Your task to perform on an android device: Open calendar and show me the third week of next month Image 0: 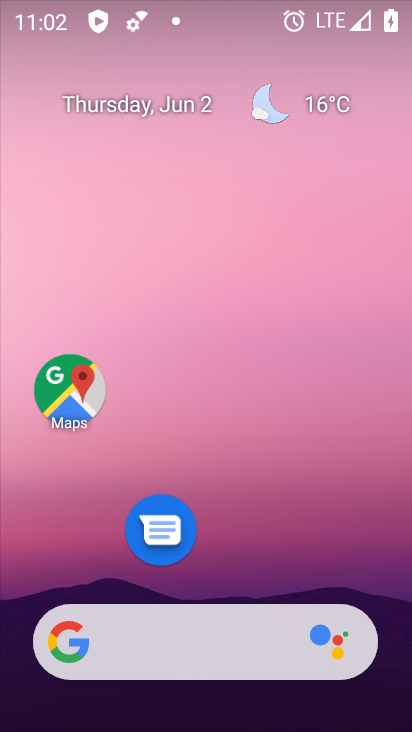
Step 0: drag from (282, 678) to (243, 210)
Your task to perform on an android device: Open calendar and show me the third week of next month Image 1: 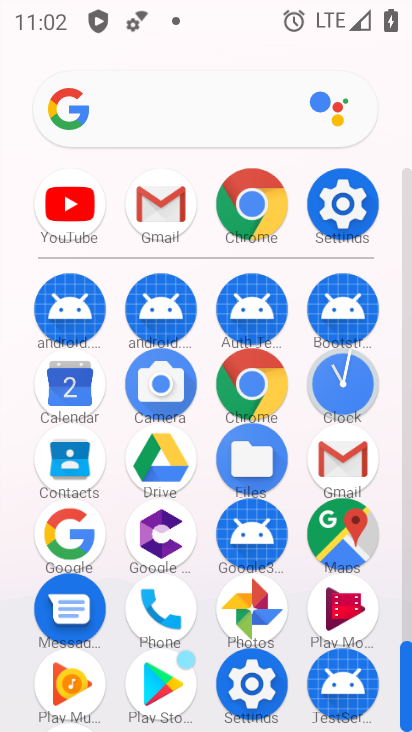
Step 1: click (72, 390)
Your task to perform on an android device: Open calendar and show me the third week of next month Image 2: 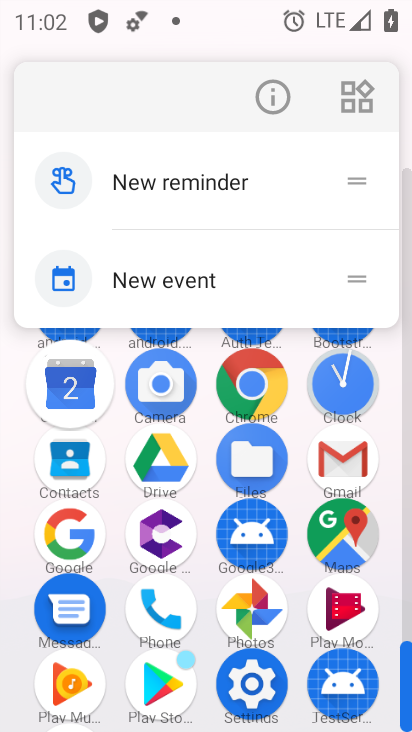
Step 2: click (67, 385)
Your task to perform on an android device: Open calendar and show me the third week of next month Image 3: 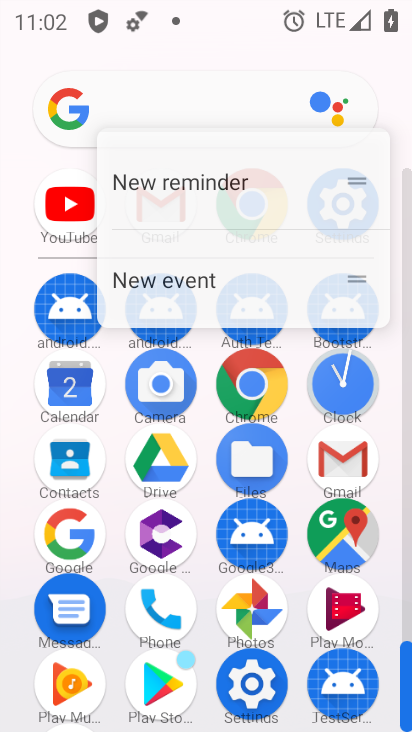
Step 3: click (71, 382)
Your task to perform on an android device: Open calendar and show me the third week of next month Image 4: 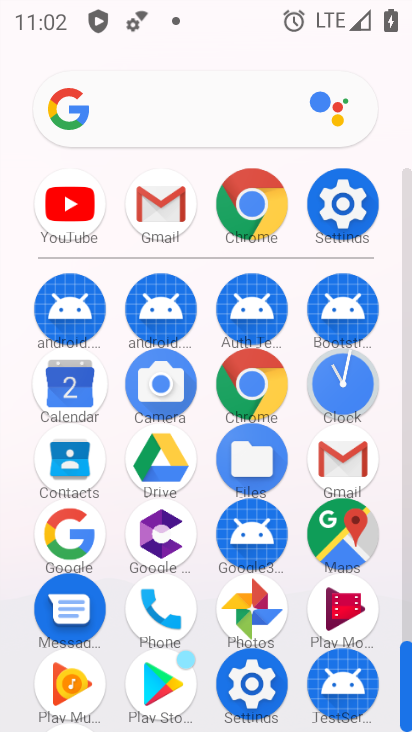
Step 4: click (74, 382)
Your task to perform on an android device: Open calendar and show me the third week of next month Image 5: 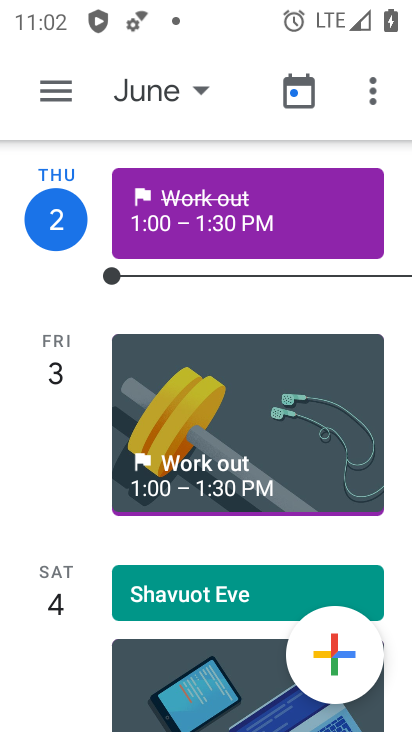
Step 5: click (198, 94)
Your task to perform on an android device: Open calendar and show me the third week of next month Image 6: 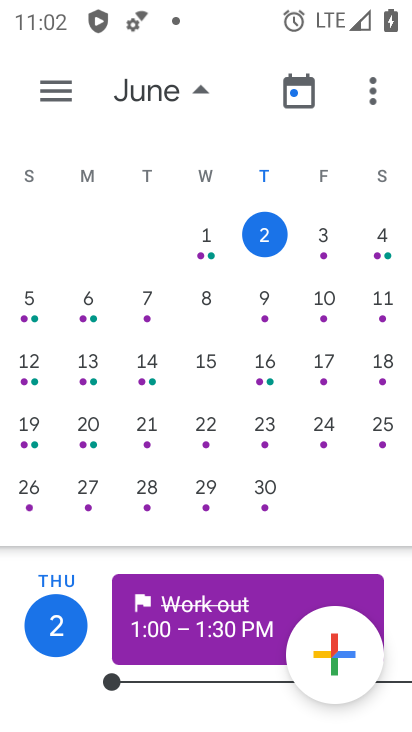
Step 6: click (267, 364)
Your task to perform on an android device: Open calendar and show me the third week of next month Image 7: 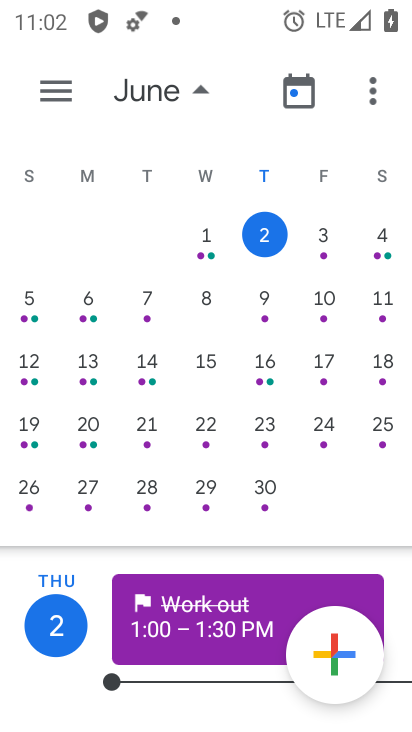
Step 7: click (267, 364)
Your task to perform on an android device: Open calendar and show me the third week of next month Image 8: 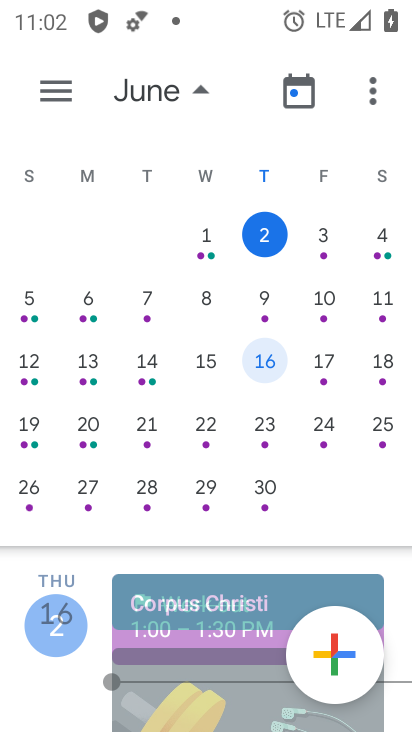
Step 8: click (267, 364)
Your task to perform on an android device: Open calendar and show me the third week of next month Image 9: 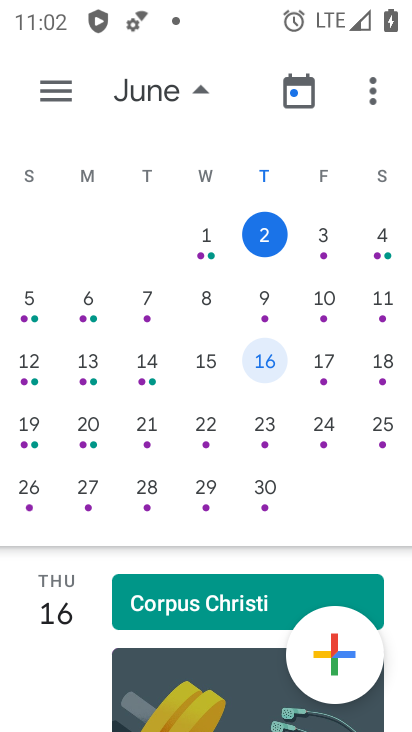
Step 9: click (265, 362)
Your task to perform on an android device: Open calendar and show me the third week of next month Image 10: 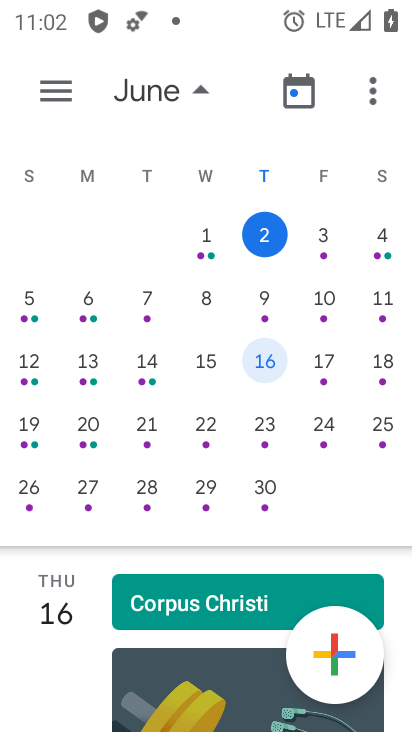
Step 10: click (260, 361)
Your task to perform on an android device: Open calendar and show me the third week of next month Image 11: 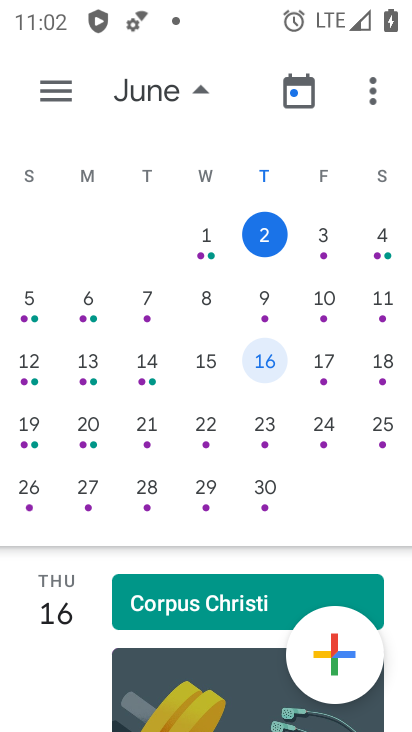
Step 11: click (261, 362)
Your task to perform on an android device: Open calendar and show me the third week of next month Image 12: 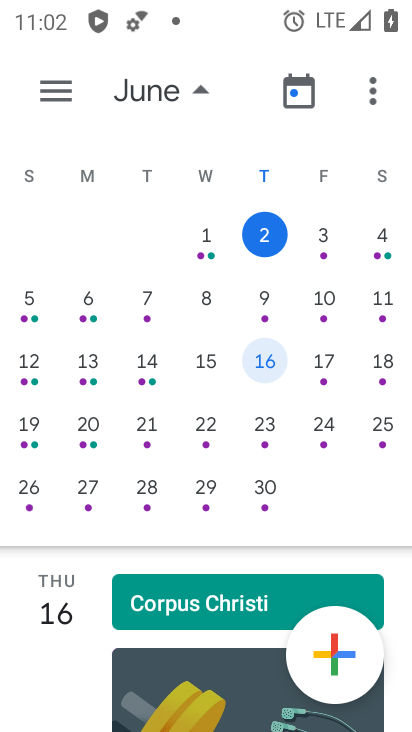
Step 12: click (260, 360)
Your task to perform on an android device: Open calendar and show me the third week of next month Image 13: 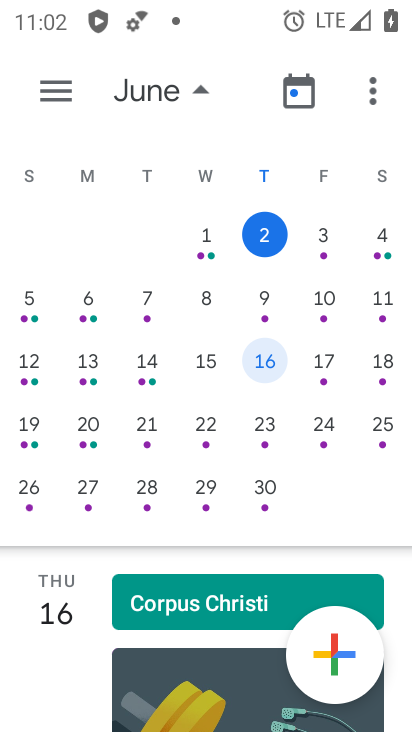
Step 13: click (264, 355)
Your task to perform on an android device: Open calendar and show me the third week of next month Image 14: 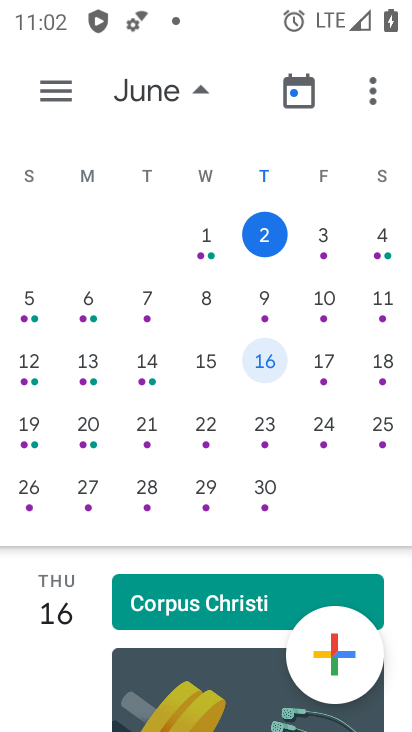
Step 14: click (264, 355)
Your task to perform on an android device: Open calendar and show me the third week of next month Image 15: 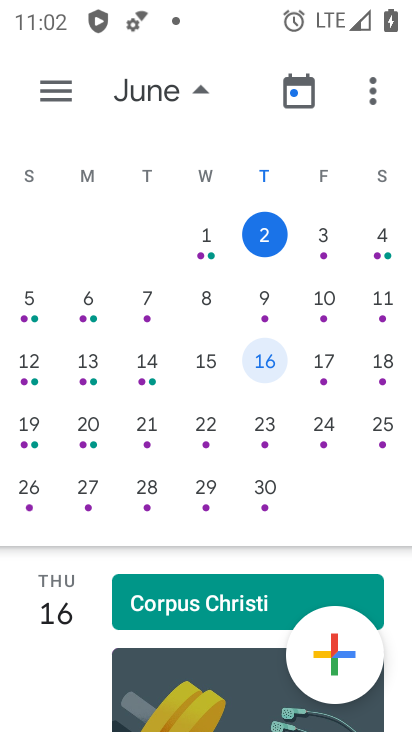
Step 15: click (266, 357)
Your task to perform on an android device: Open calendar and show me the third week of next month Image 16: 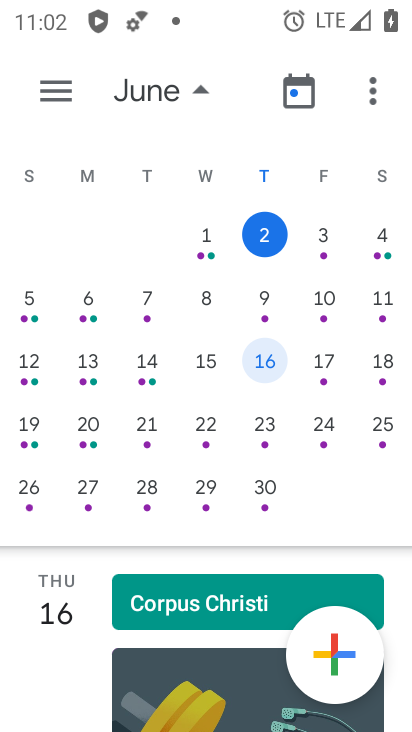
Step 16: click (268, 361)
Your task to perform on an android device: Open calendar and show me the third week of next month Image 17: 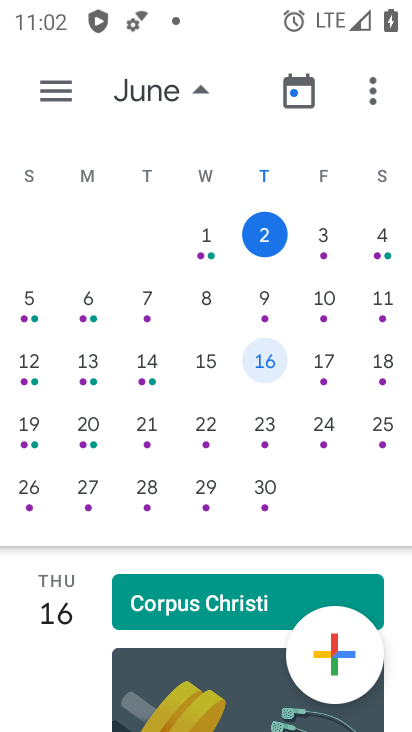
Step 17: click (265, 367)
Your task to perform on an android device: Open calendar and show me the third week of next month Image 18: 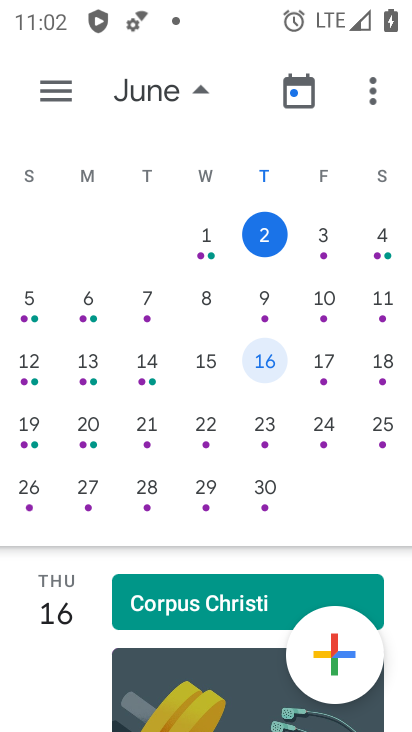
Step 18: click (266, 357)
Your task to perform on an android device: Open calendar and show me the third week of next month Image 19: 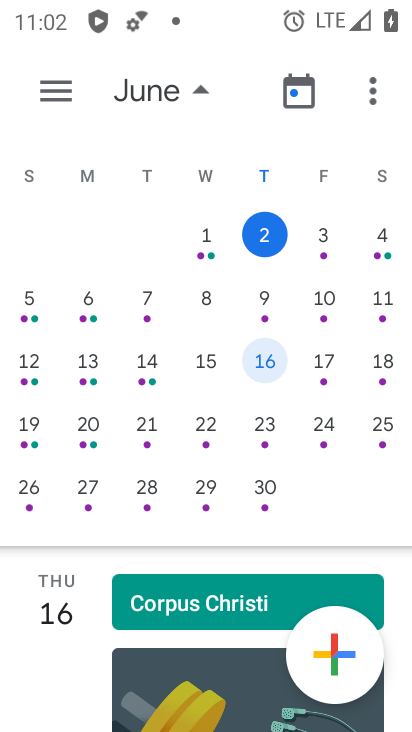
Step 19: click (265, 358)
Your task to perform on an android device: Open calendar and show me the third week of next month Image 20: 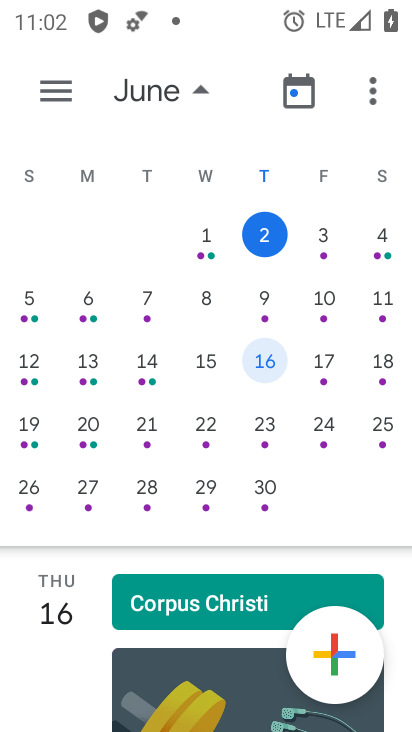
Step 20: click (260, 356)
Your task to perform on an android device: Open calendar and show me the third week of next month Image 21: 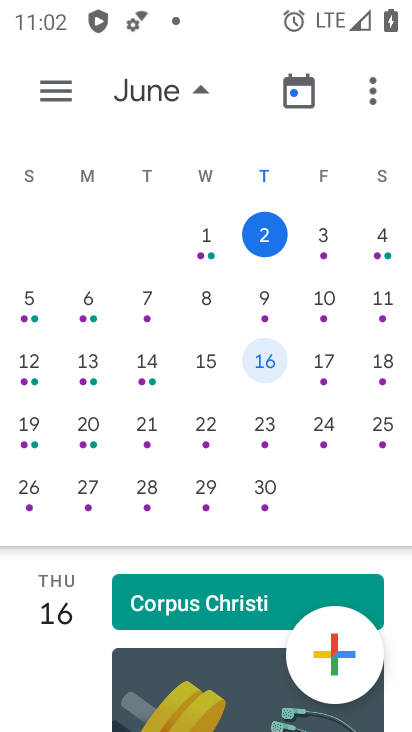
Step 21: click (255, 352)
Your task to perform on an android device: Open calendar and show me the third week of next month Image 22: 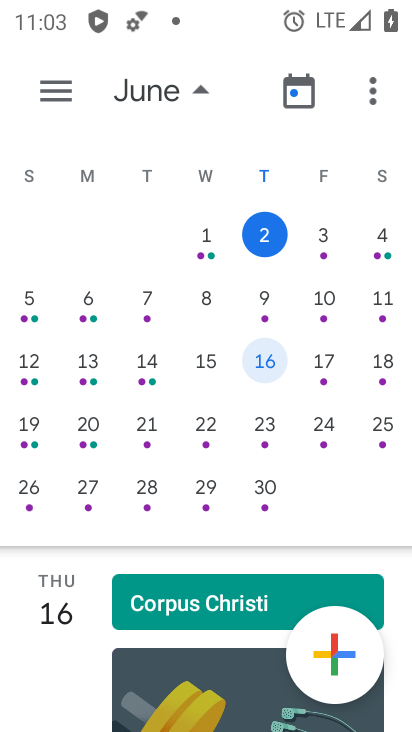
Step 22: press back button
Your task to perform on an android device: Open calendar and show me the third week of next month Image 23: 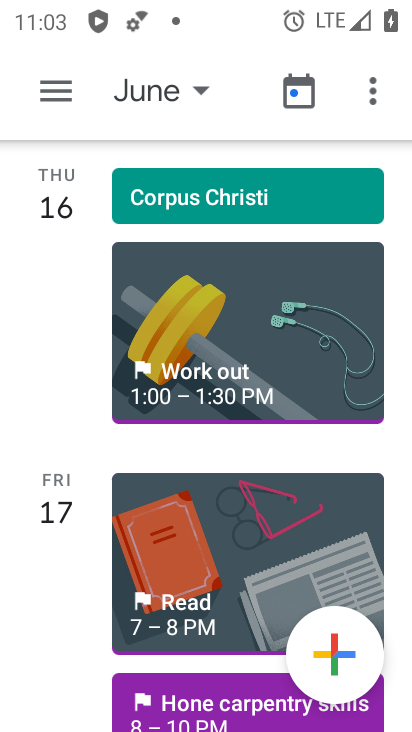
Step 23: press home button
Your task to perform on an android device: Open calendar and show me the third week of next month Image 24: 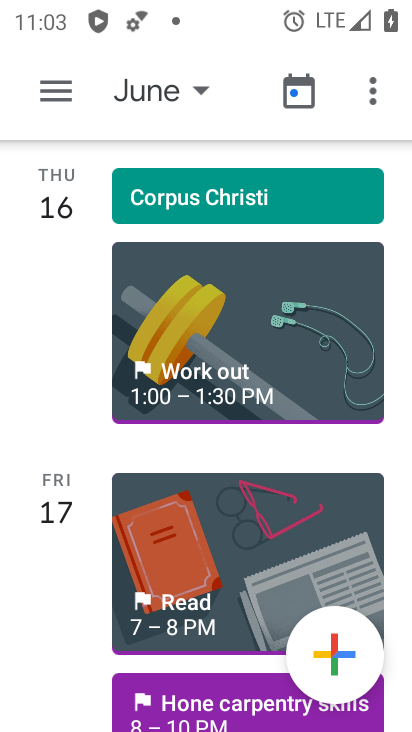
Step 24: click (198, 96)
Your task to perform on an android device: Open calendar and show me the third week of next month Image 25: 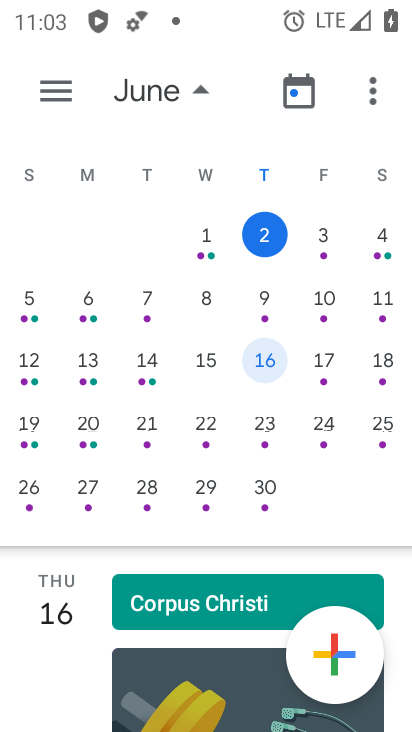
Step 25: click (263, 343)
Your task to perform on an android device: Open calendar and show me the third week of next month Image 26: 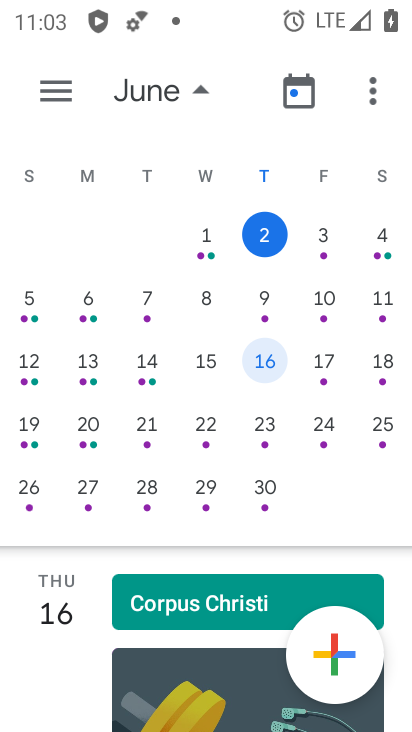
Step 26: click (263, 343)
Your task to perform on an android device: Open calendar and show me the third week of next month Image 27: 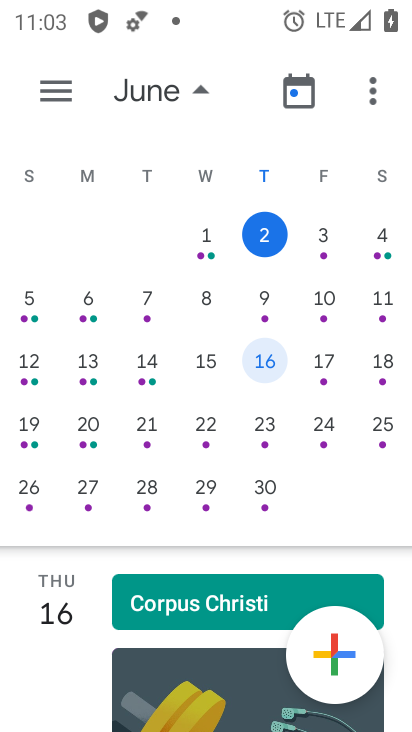
Step 27: click (266, 353)
Your task to perform on an android device: Open calendar and show me the third week of next month Image 28: 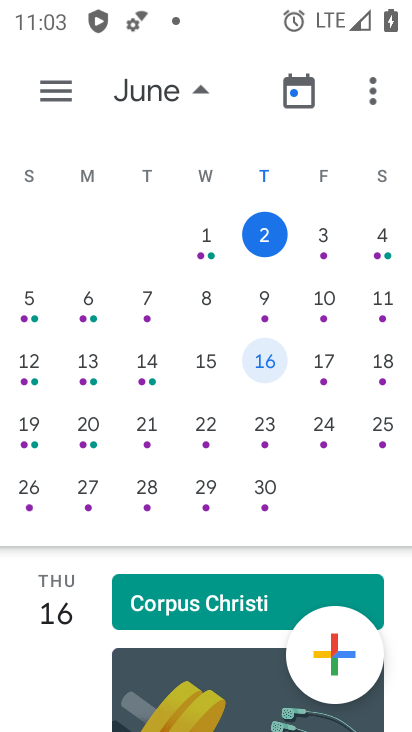
Step 28: click (266, 362)
Your task to perform on an android device: Open calendar and show me the third week of next month Image 29: 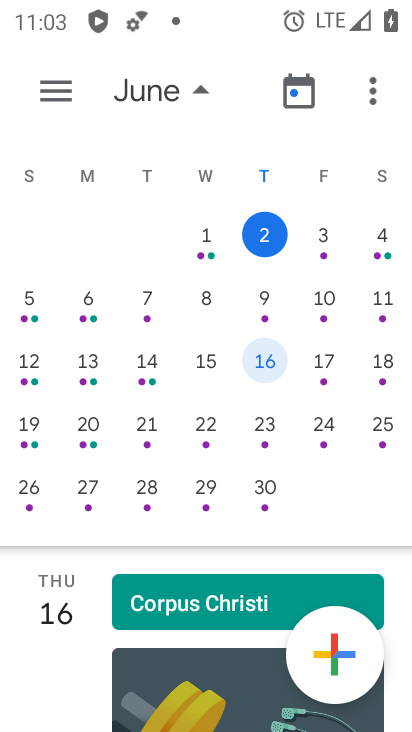
Step 29: click (268, 363)
Your task to perform on an android device: Open calendar and show me the third week of next month Image 30: 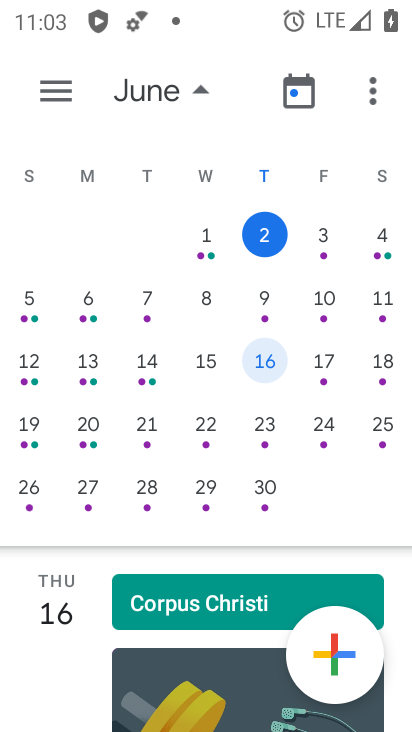
Step 30: click (270, 361)
Your task to perform on an android device: Open calendar and show me the third week of next month Image 31: 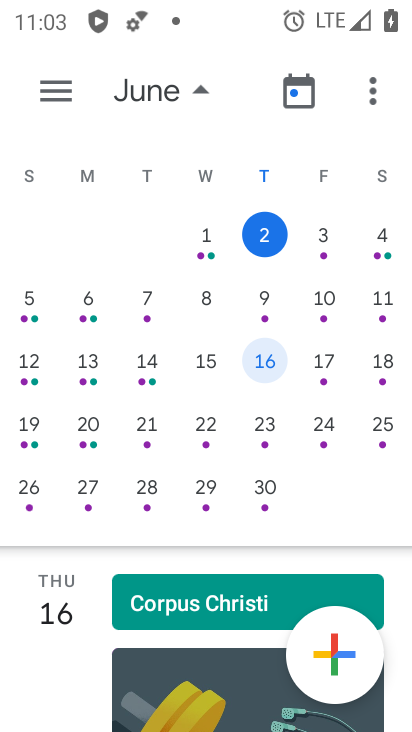
Step 31: click (270, 361)
Your task to perform on an android device: Open calendar and show me the third week of next month Image 32: 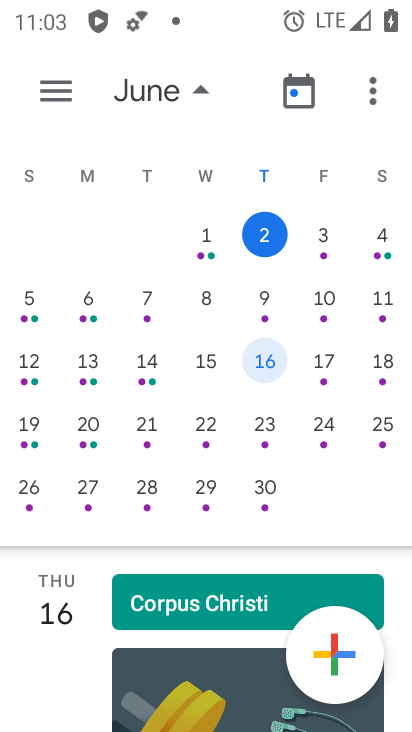
Step 32: click (271, 360)
Your task to perform on an android device: Open calendar and show me the third week of next month Image 33: 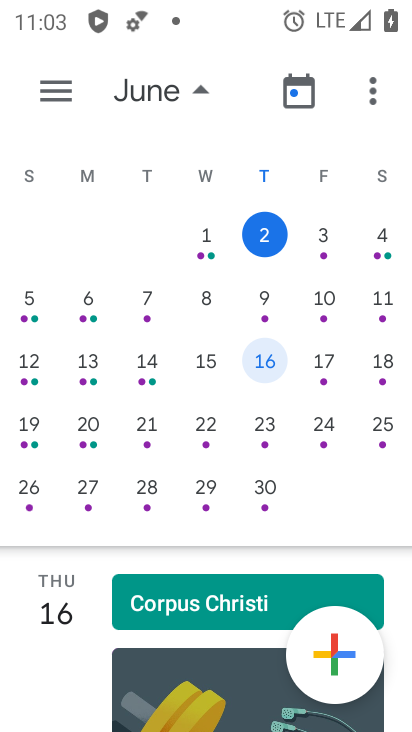
Step 33: click (271, 360)
Your task to perform on an android device: Open calendar and show me the third week of next month Image 34: 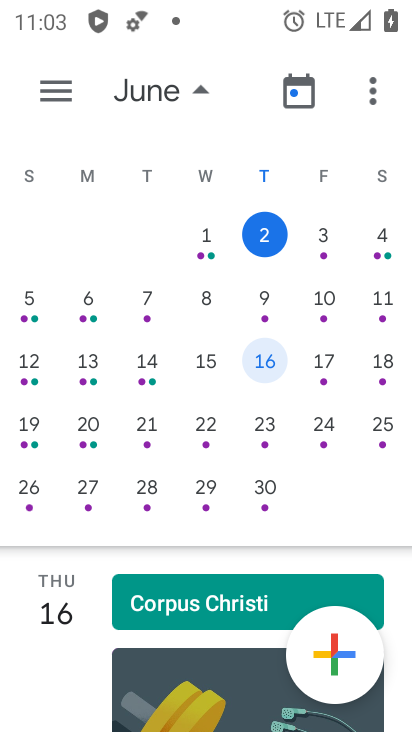
Step 34: click (271, 360)
Your task to perform on an android device: Open calendar and show me the third week of next month Image 35: 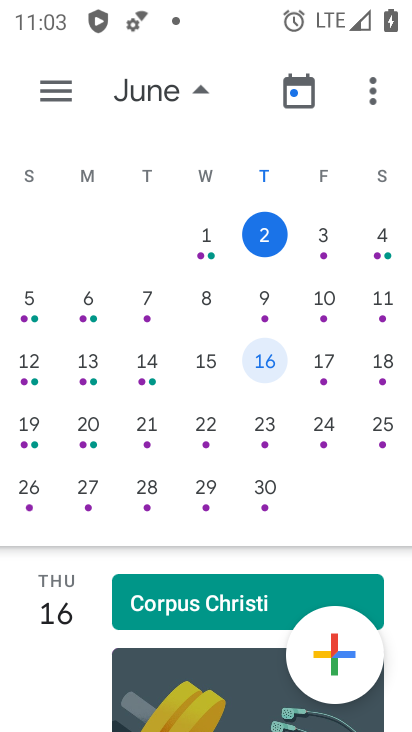
Step 35: click (269, 360)
Your task to perform on an android device: Open calendar and show me the third week of next month Image 36: 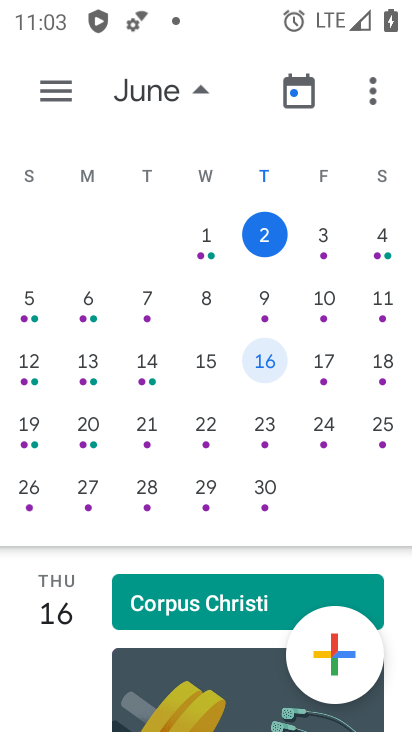
Step 36: click (266, 338)
Your task to perform on an android device: Open calendar and show me the third week of next month Image 37: 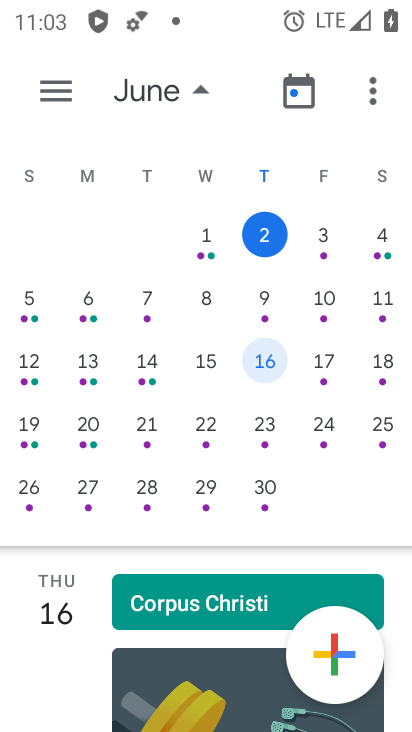
Step 37: click (280, 361)
Your task to perform on an android device: Open calendar and show me the third week of next month Image 38: 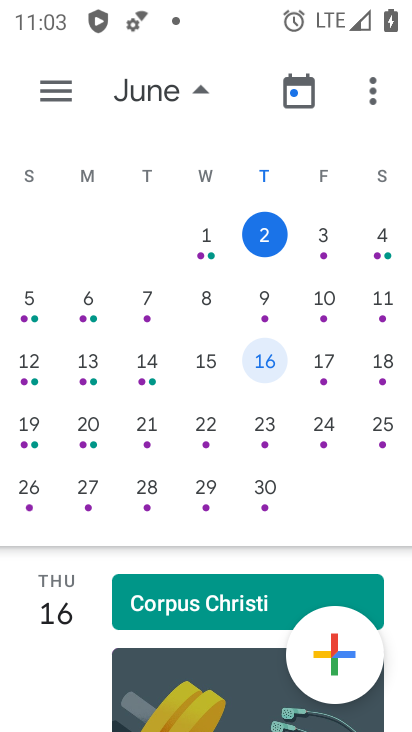
Step 38: click (264, 366)
Your task to perform on an android device: Open calendar and show me the third week of next month Image 39: 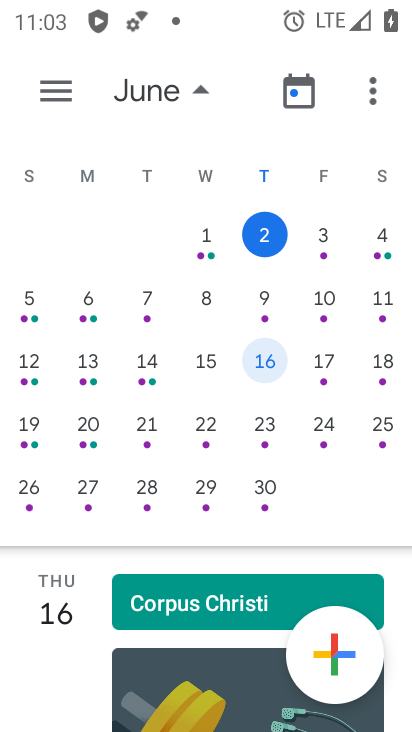
Step 39: click (271, 359)
Your task to perform on an android device: Open calendar and show me the third week of next month Image 40: 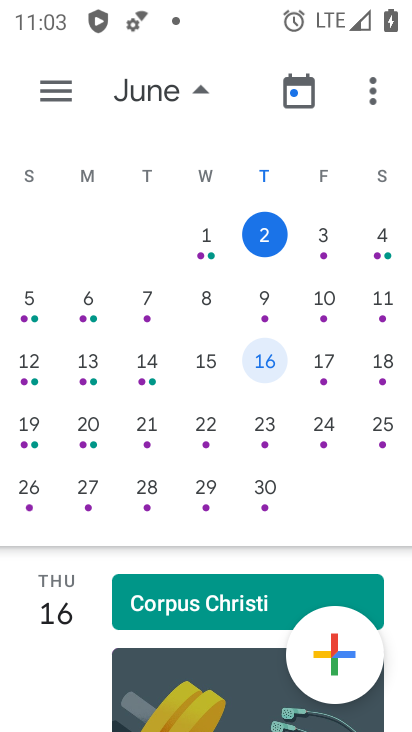
Step 40: click (271, 357)
Your task to perform on an android device: Open calendar and show me the third week of next month Image 41: 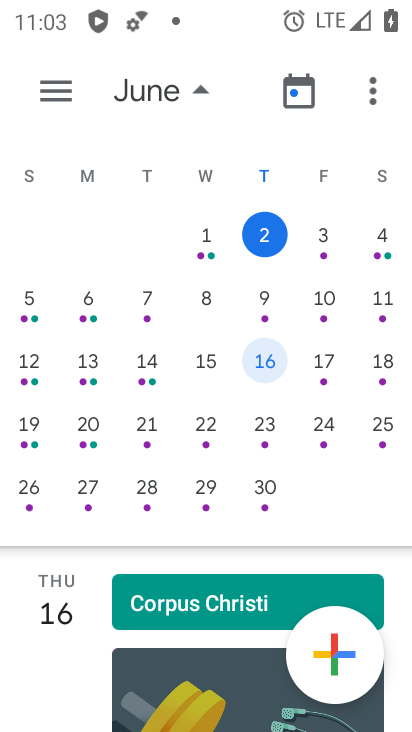
Step 41: click (271, 357)
Your task to perform on an android device: Open calendar and show me the third week of next month Image 42: 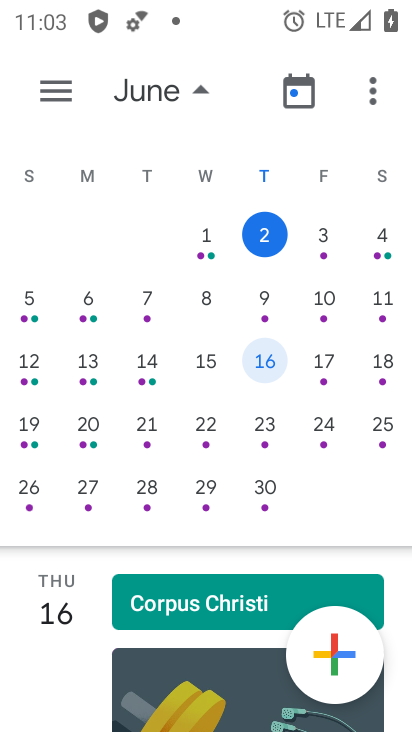
Step 42: click (269, 357)
Your task to perform on an android device: Open calendar and show me the third week of next month Image 43: 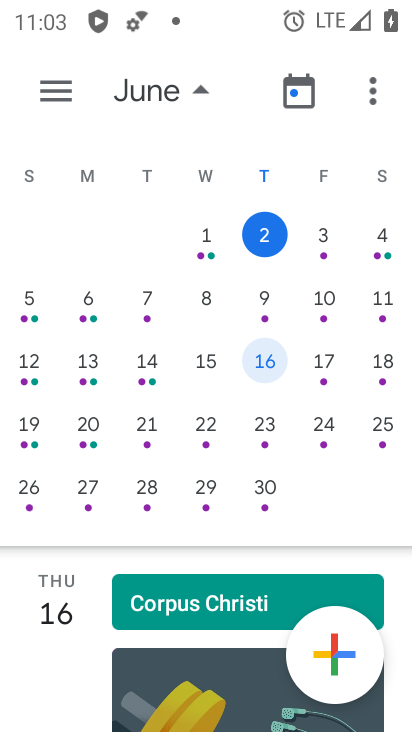
Step 43: click (266, 357)
Your task to perform on an android device: Open calendar and show me the third week of next month Image 44: 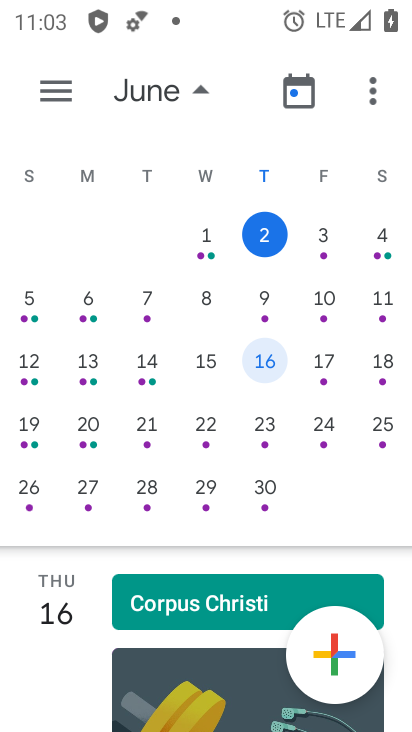
Step 44: click (265, 357)
Your task to perform on an android device: Open calendar and show me the third week of next month Image 45: 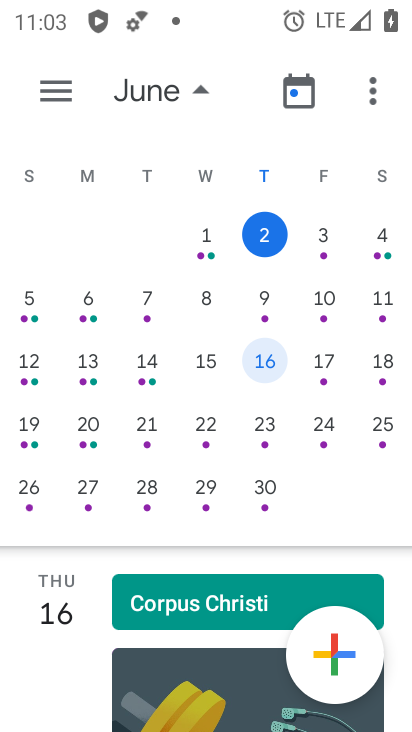
Step 45: click (265, 357)
Your task to perform on an android device: Open calendar and show me the third week of next month Image 46: 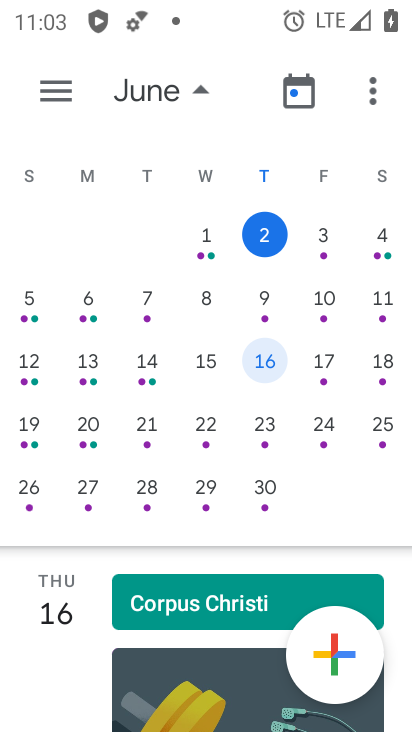
Step 46: task complete